Your task to perform on an android device: Open Google Chrome and open the bookmarks view Image 0: 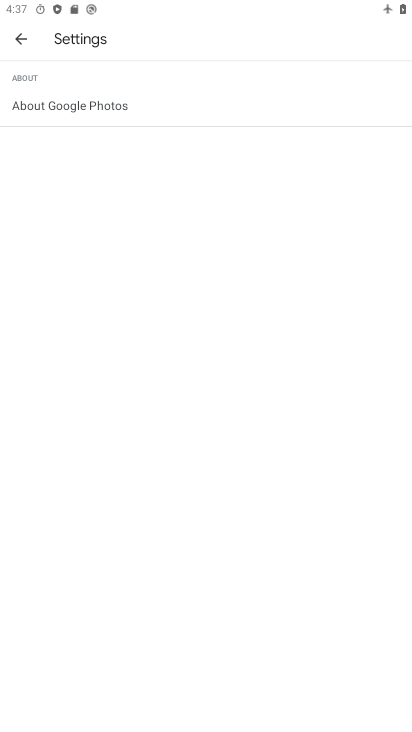
Step 0: press home button
Your task to perform on an android device: Open Google Chrome and open the bookmarks view Image 1: 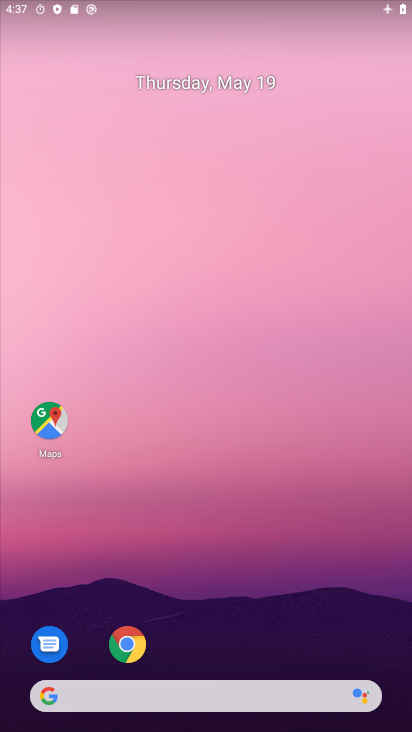
Step 1: click (122, 649)
Your task to perform on an android device: Open Google Chrome and open the bookmarks view Image 2: 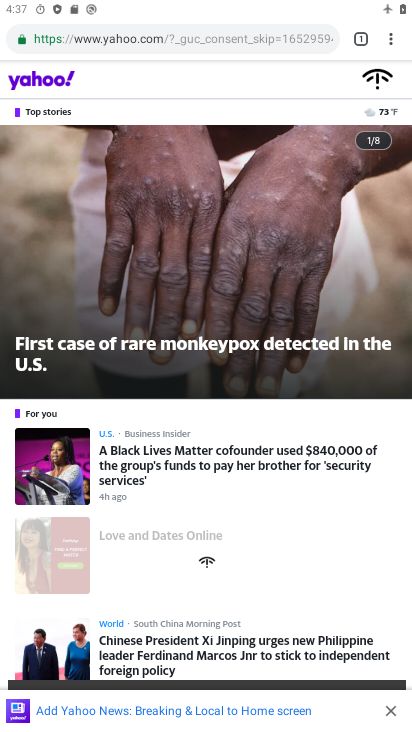
Step 2: click (393, 35)
Your task to perform on an android device: Open Google Chrome and open the bookmarks view Image 3: 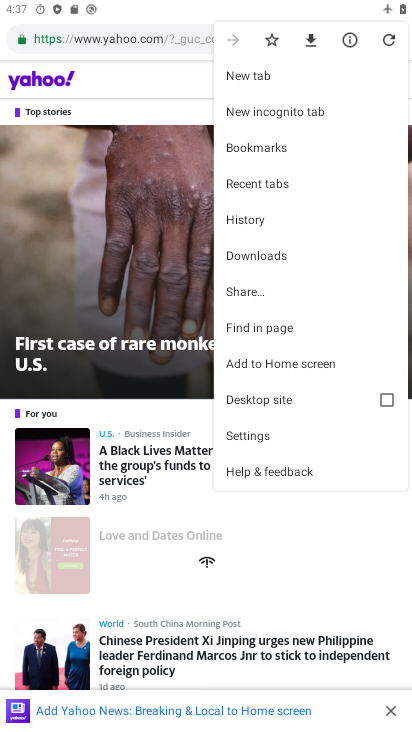
Step 3: click (253, 141)
Your task to perform on an android device: Open Google Chrome and open the bookmarks view Image 4: 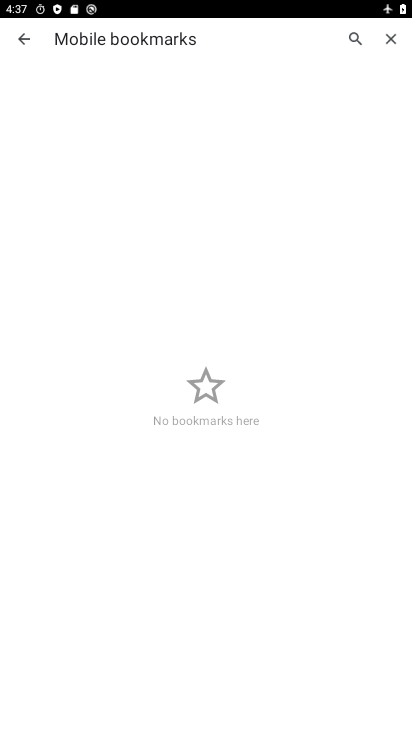
Step 4: task complete